Your task to perform on an android device: Go to Yahoo.com Image 0: 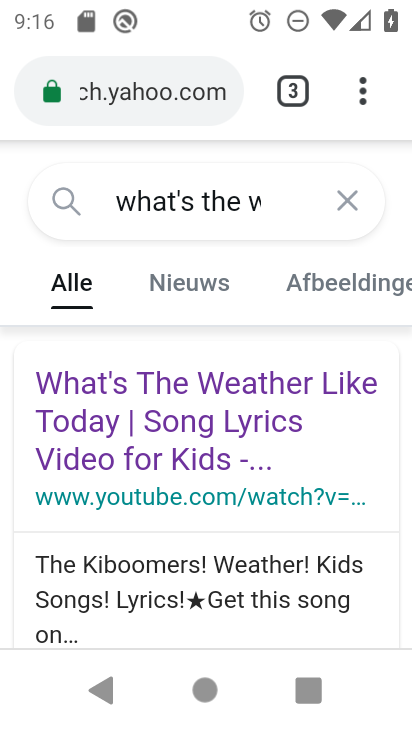
Step 0: press home button
Your task to perform on an android device: Go to Yahoo.com Image 1: 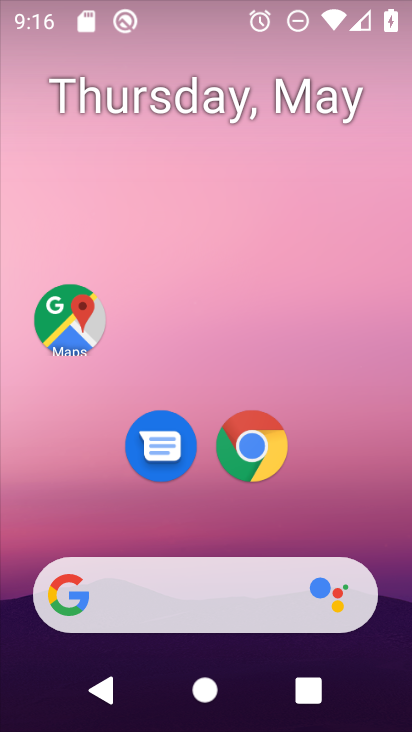
Step 1: drag from (373, 477) to (319, 140)
Your task to perform on an android device: Go to Yahoo.com Image 2: 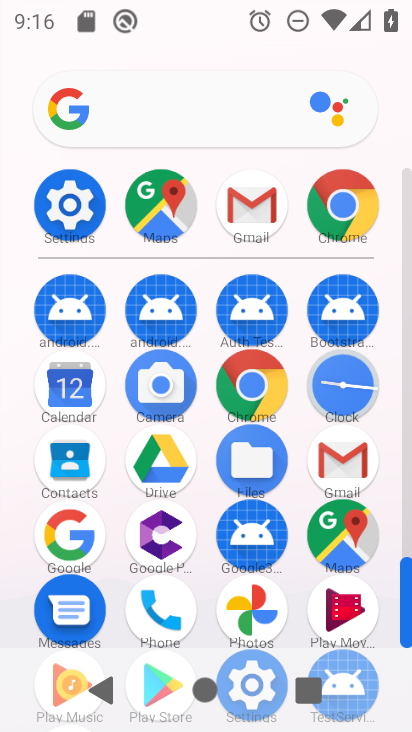
Step 2: click (336, 215)
Your task to perform on an android device: Go to Yahoo.com Image 3: 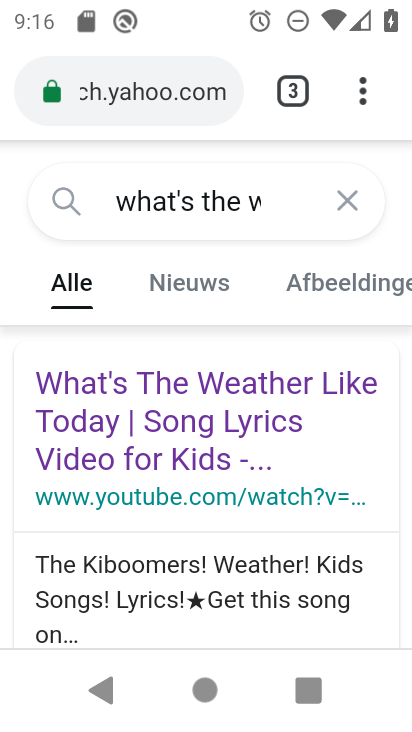
Step 3: click (157, 103)
Your task to perform on an android device: Go to Yahoo.com Image 4: 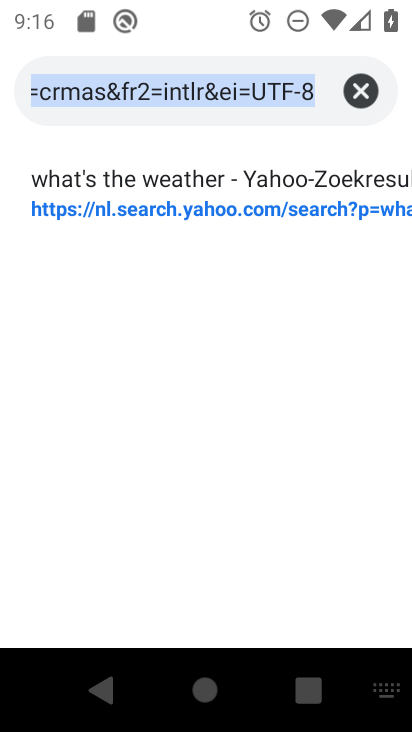
Step 4: click (357, 97)
Your task to perform on an android device: Go to Yahoo.com Image 5: 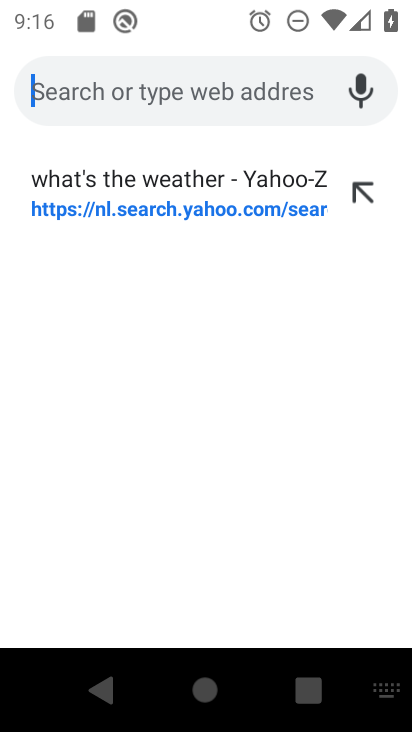
Step 5: type "yahoo.com"
Your task to perform on an android device: Go to Yahoo.com Image 6: 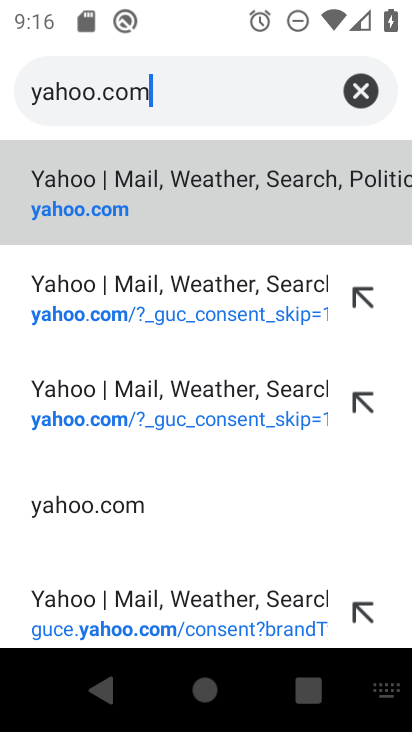
Step 6: click (173, 198)
Your task to perform on an android device: Go to Yahoo.com Image 7: 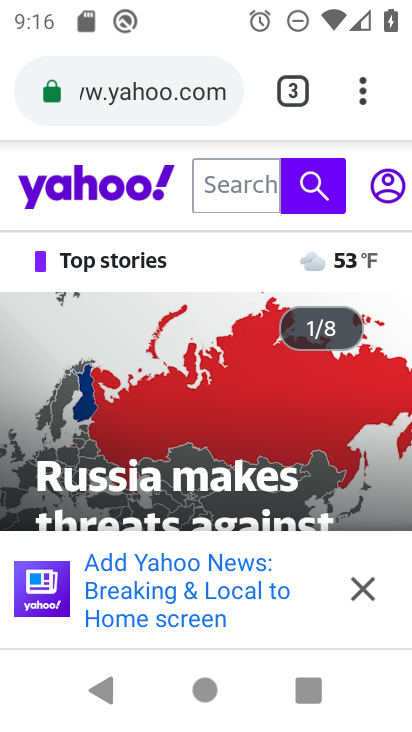
Step 7: task complete